Your task to perform on an android device: turn on the 12-hour format for clock Image 0: 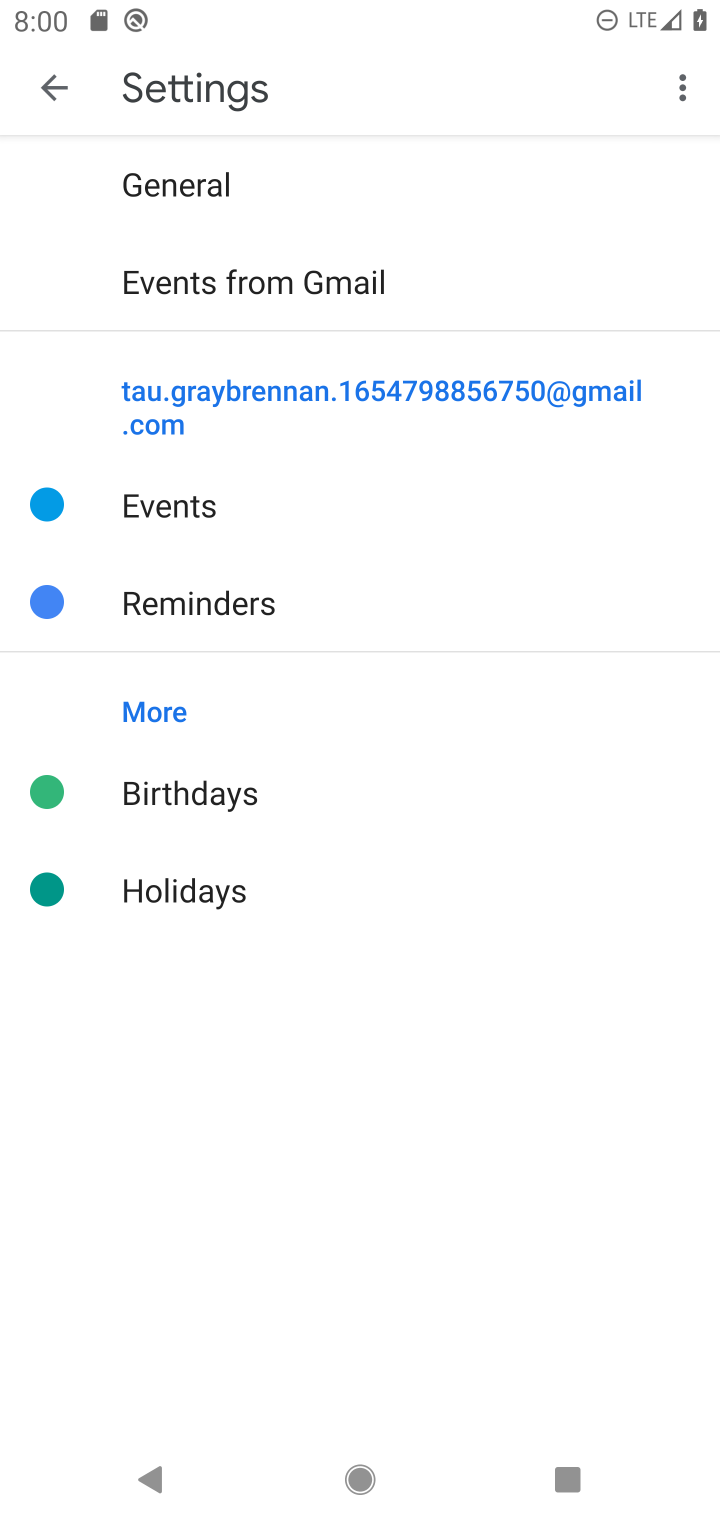
Step 0: press home button
Your task to perform on an android device: turn on the 12-hour format for clock Image 1: 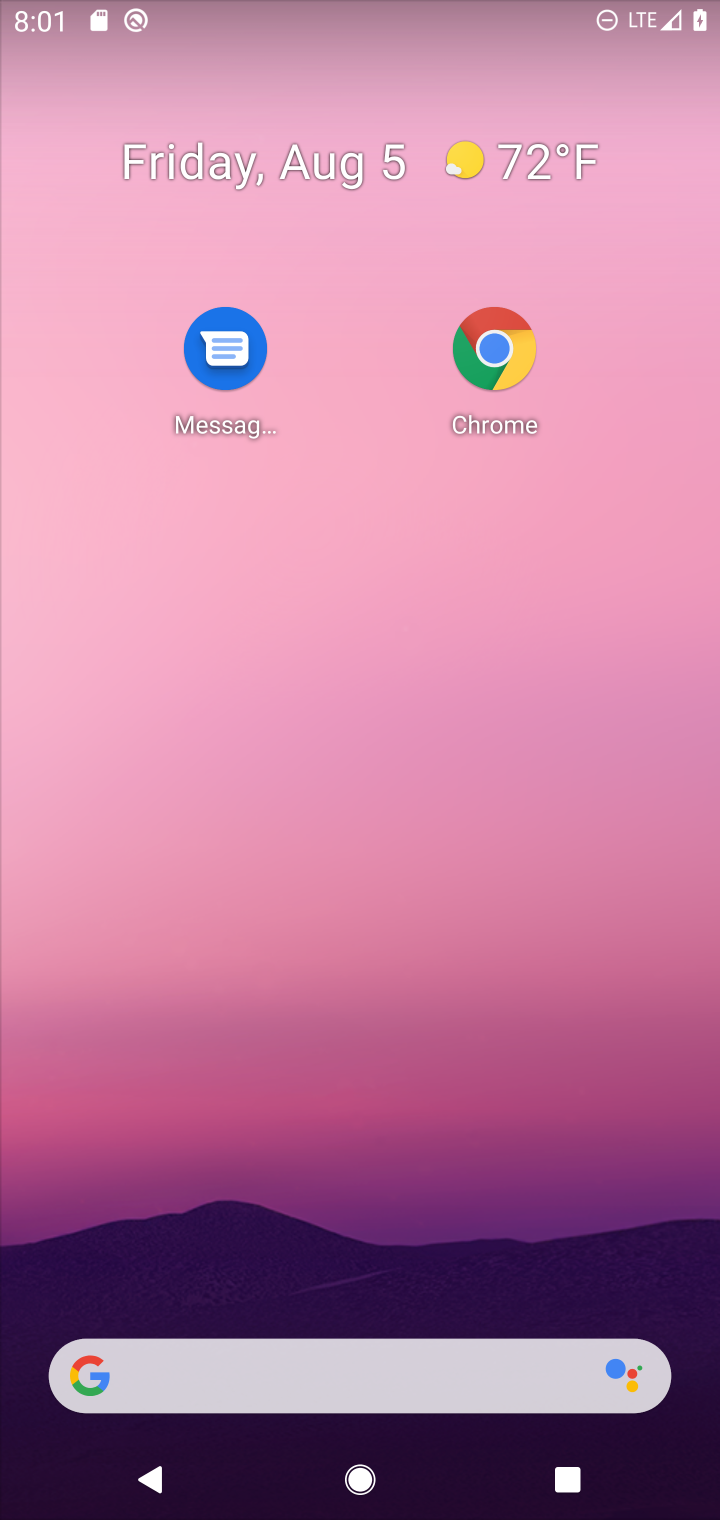
Step 1: drag from (415, 1443) to (277, 510)
Your task to perform on an android device: turn on the 12-hour format for clock Image 2: 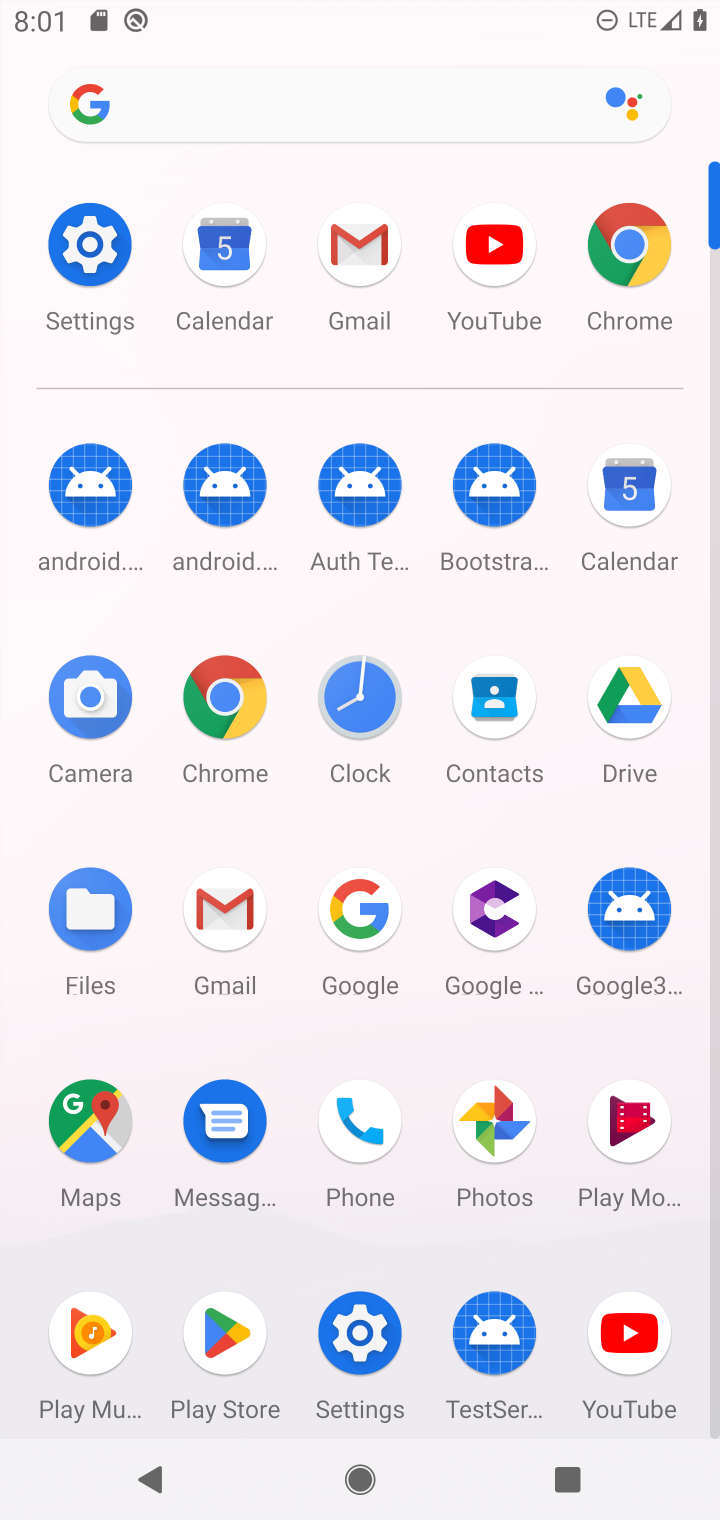
Step 2: click (386, 699)
Your task to perform on an android device: turn on the 12-hour format for clock Image 3: 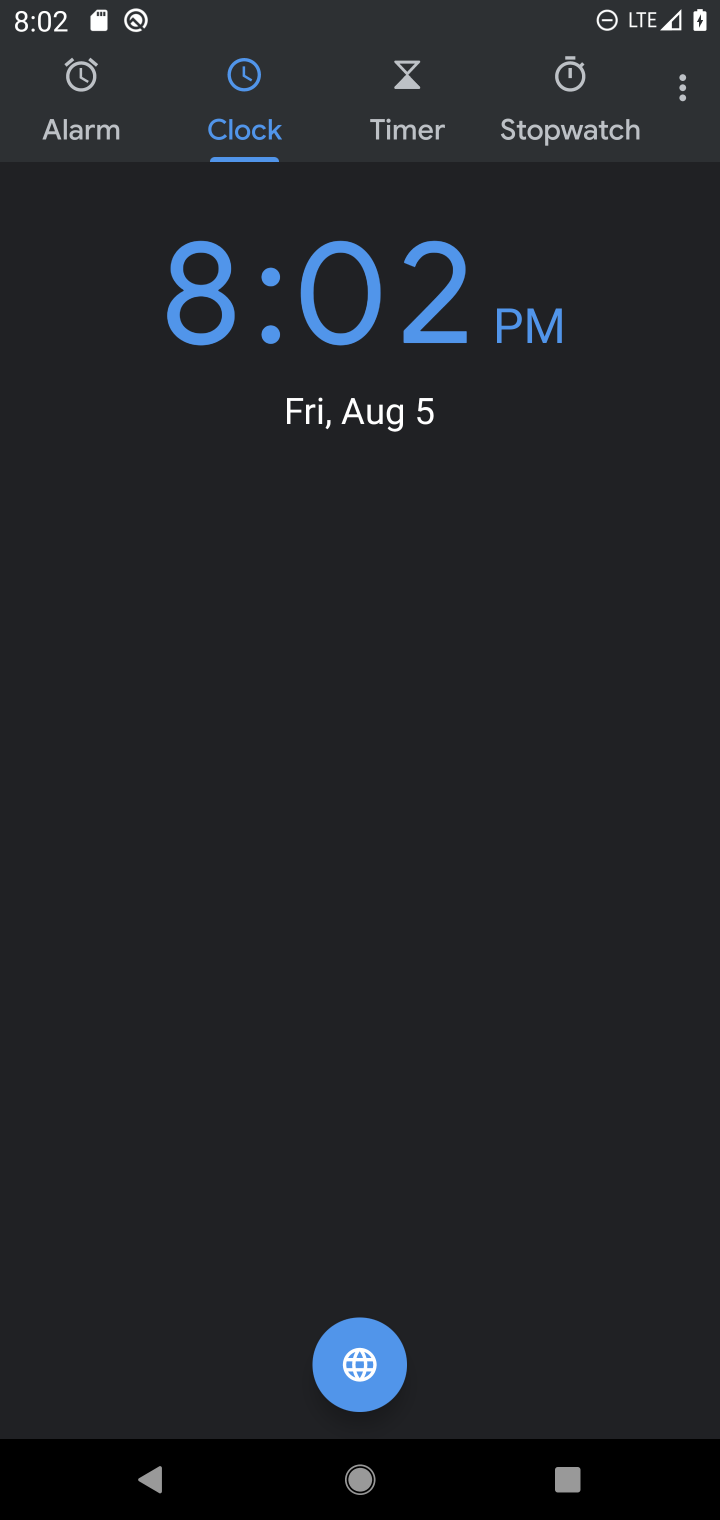
Step 3: click (677, 99)
Your task to perform on an android device: turn on the 12-hour format for clock Image 4: 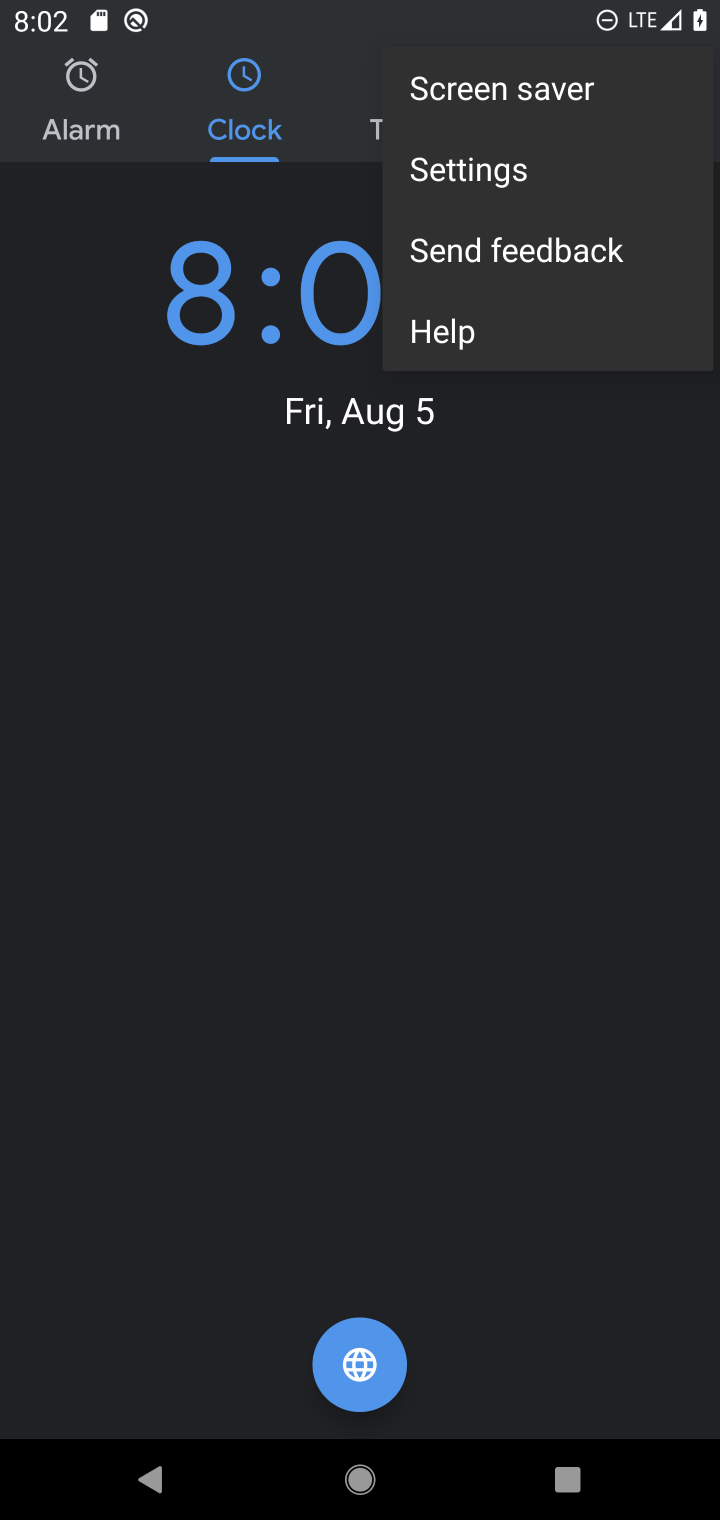
Step 4: click (457, 177)
Your task to perform on an android device: turn on the 12-hour format for clock Image 5: 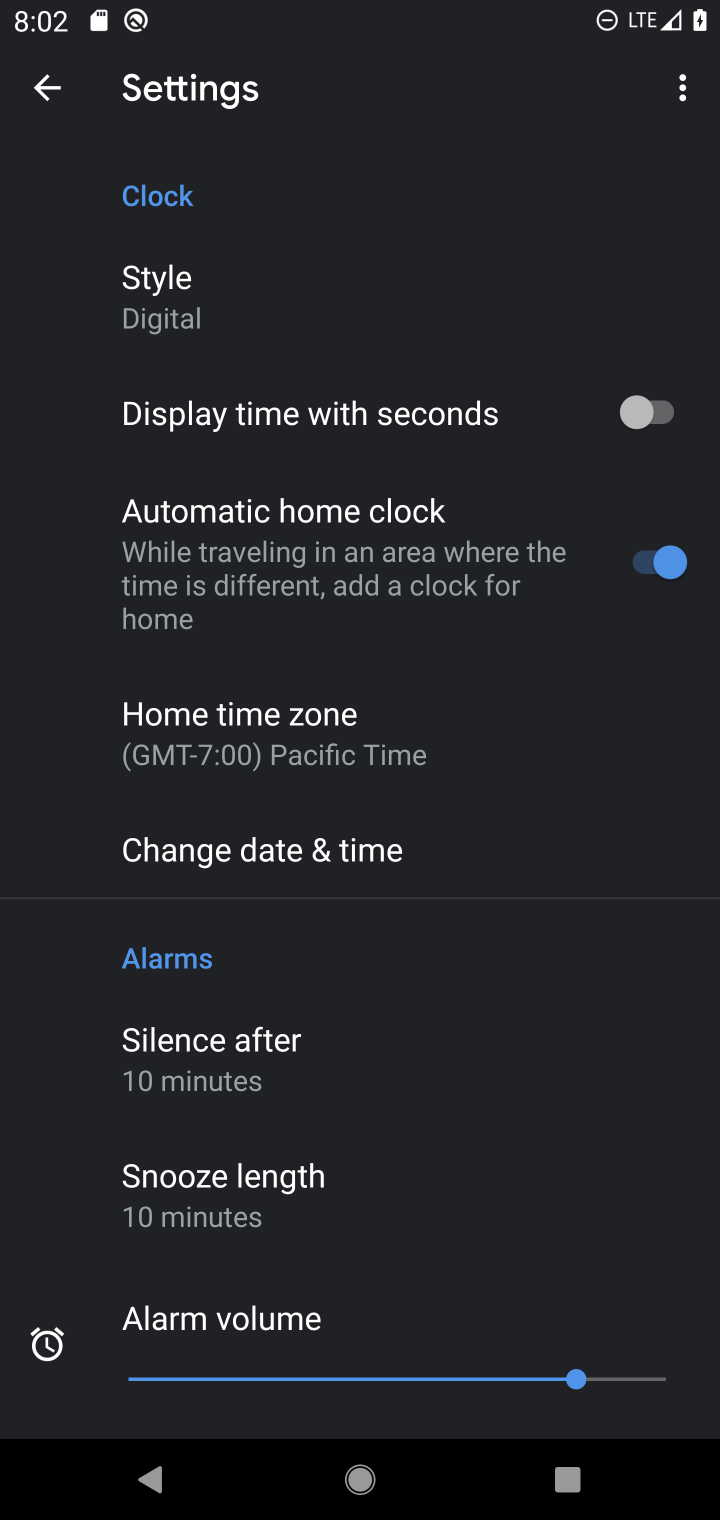
Step 5: click (288, 849)
Your task to perform on an android device: turn on the 12-hour format for clock Image 6: 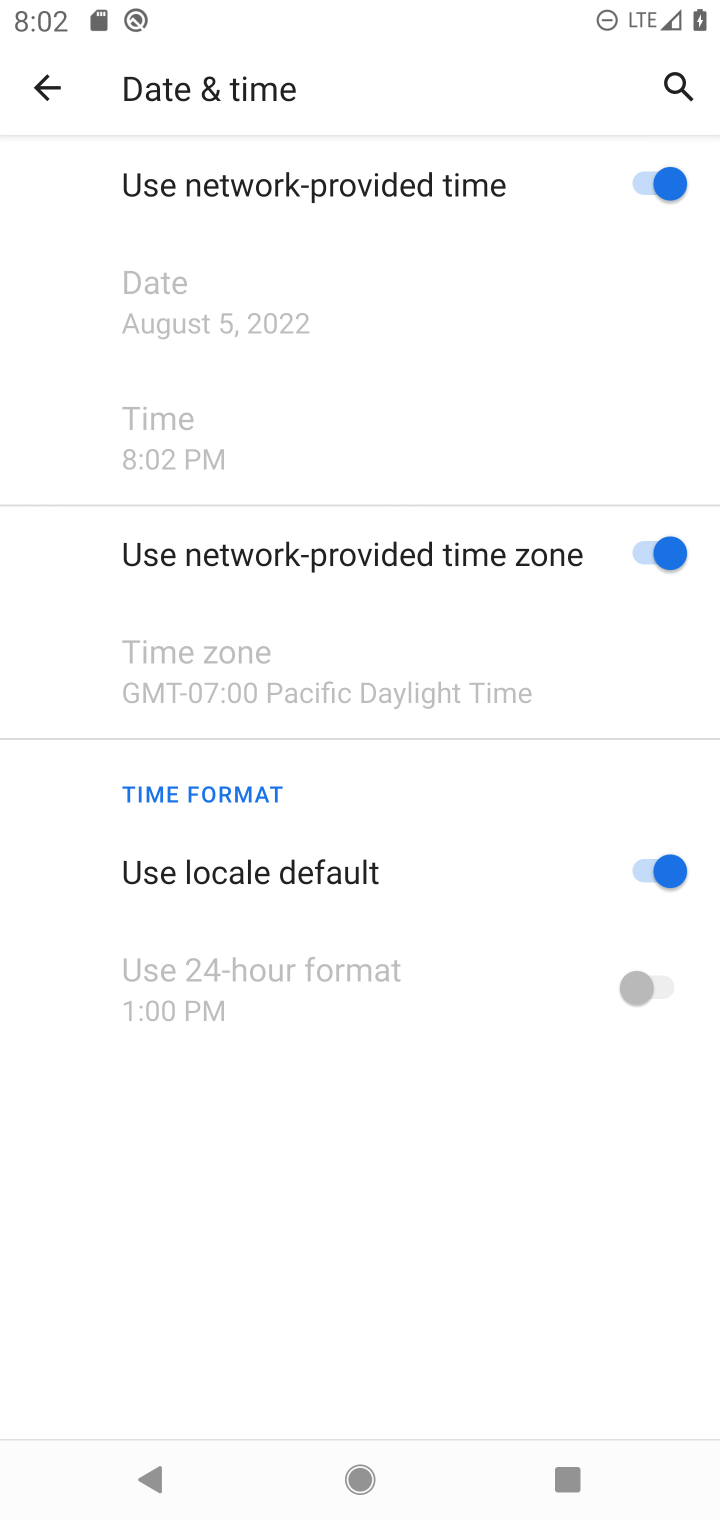
Step 6: click (636, 903)
Your task to perform on an android device: turn on the 12-hour format for clock Image 7: 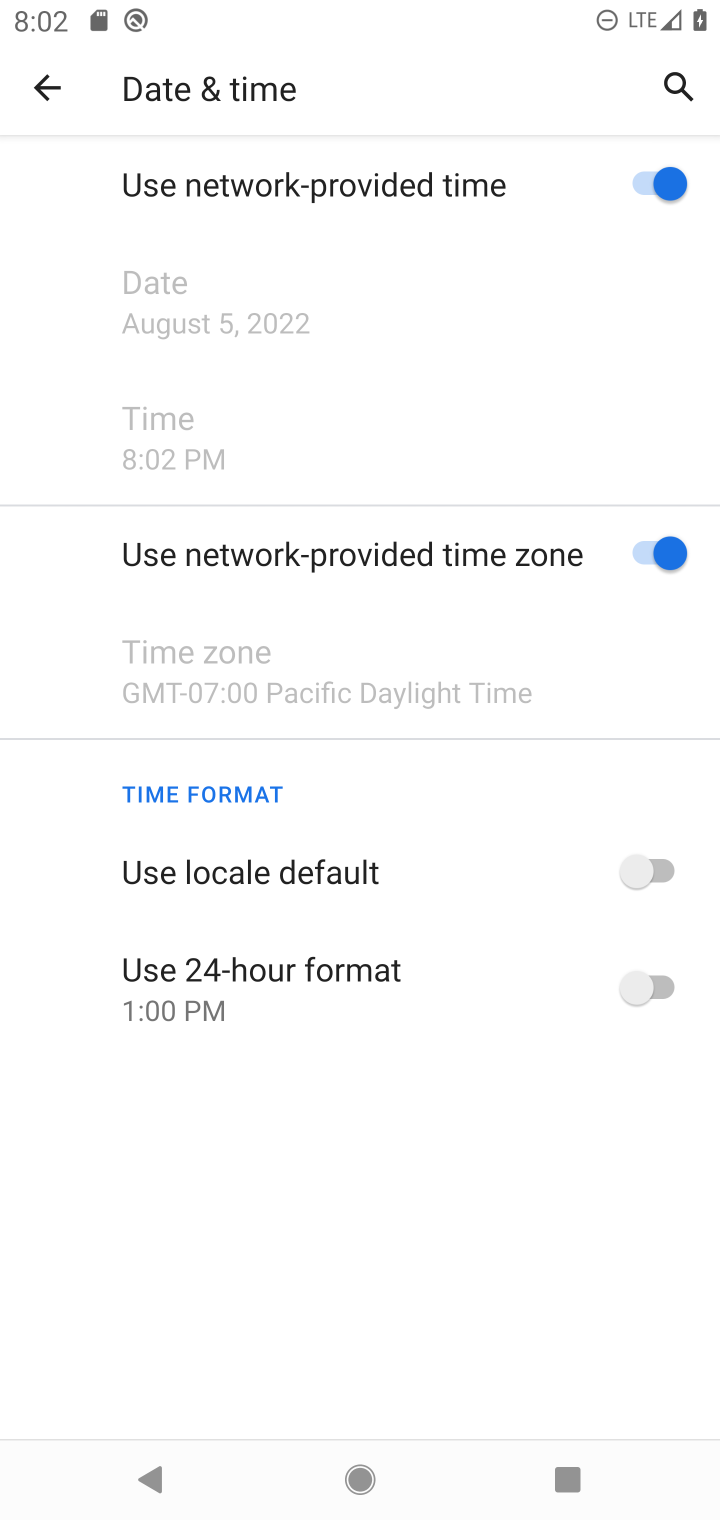
Step 7: task complete